Your task to perform on an android device: Find coffee shops on Maps Image 0: 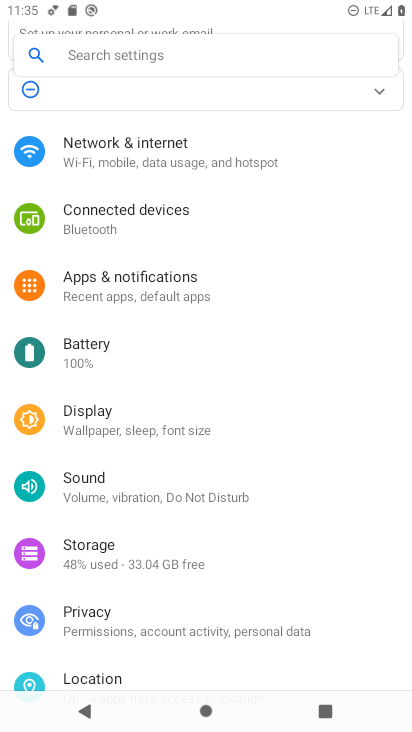
Step 0: press home button
Your task to perform on an android device: Find coffee shops on Maps Image 1: 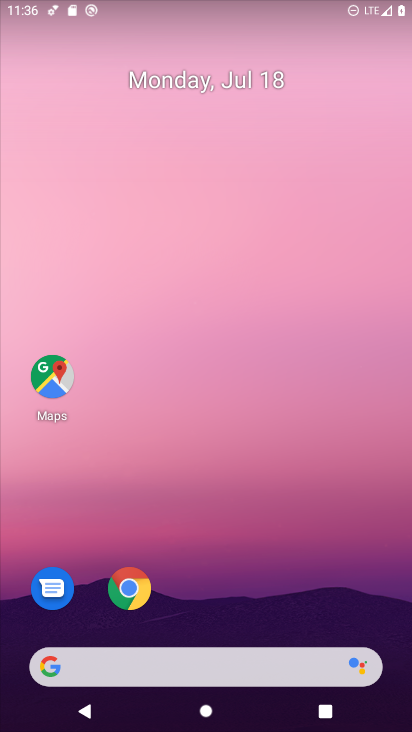
Step 1: click (51, 367)
Your task to perform on an android device: Find coffee shops on Maps Image 2: 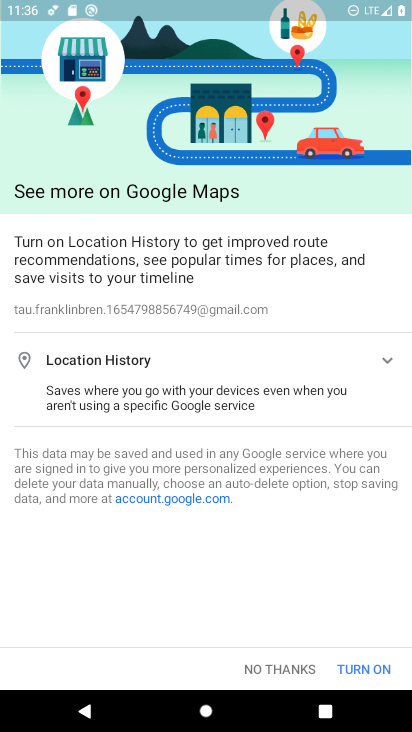
Step 2: click (360, 667)
Your task to perform on an android device: Find coffee shops on Maps Image 3: 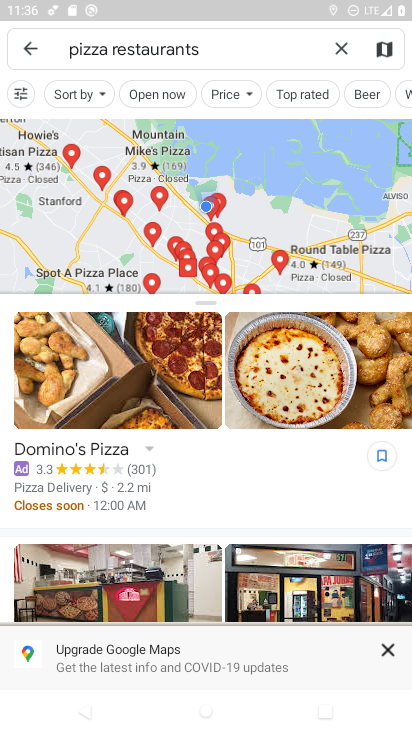
Step 3: click (341, 47)
Your task to perform on an android device: Find coffee shops on Maps Image 4: 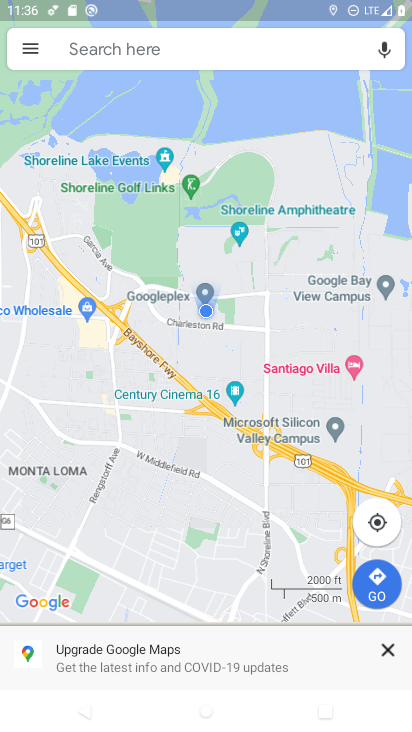
Step 4: click (141, 49)
Your task to perform on an android device: Find coffee shops on Maps Image 5: 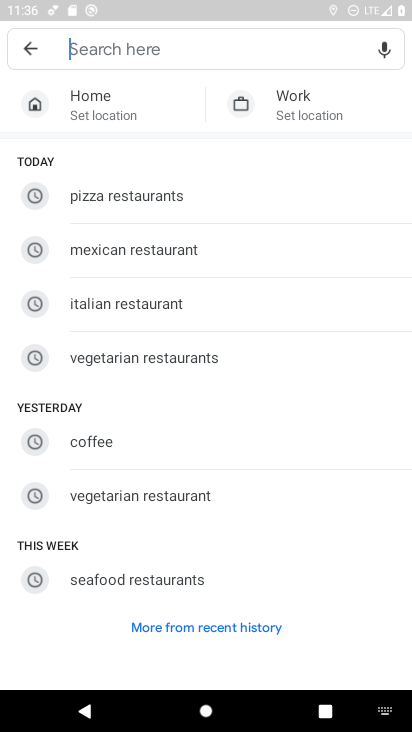
Step 5: click (109, 444)
Your task to perform on an android device: Find coffee shops on Maps Image 6: 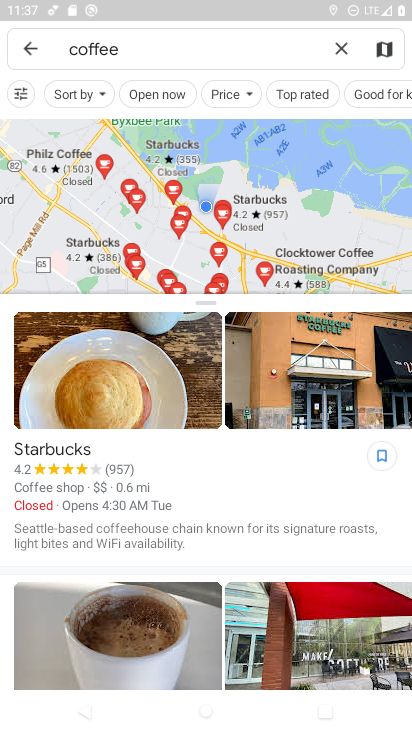
Step 6: task complete